Your task to perform on an android device: change timer sound Image 0: 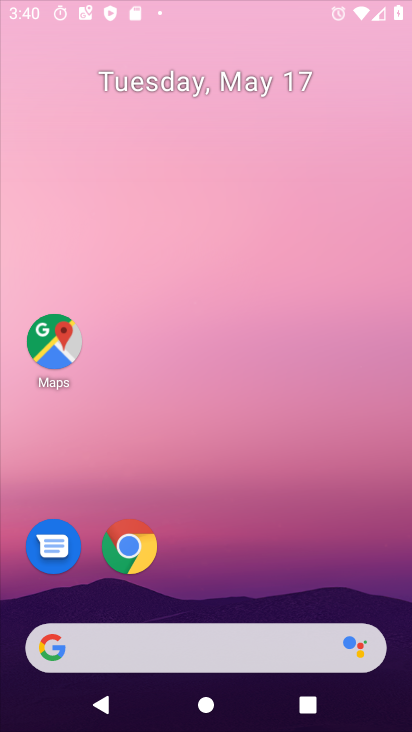
Step 0: click (254, 185)
Your task to perform on an android device: change timer sound Image 1: 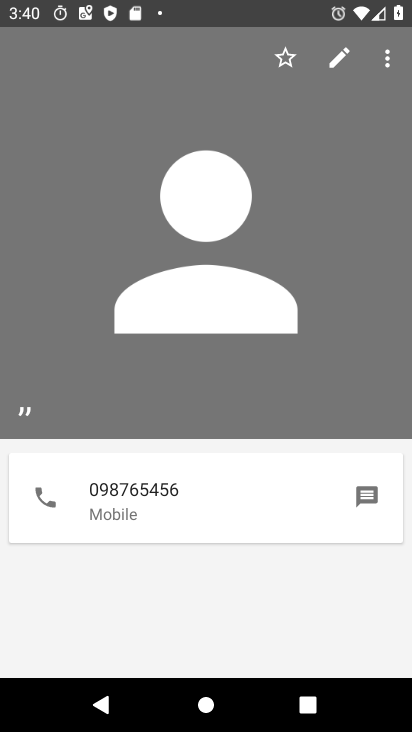
Step 1: press home button
Your task to perform on an android device: change timer sound Image 2: 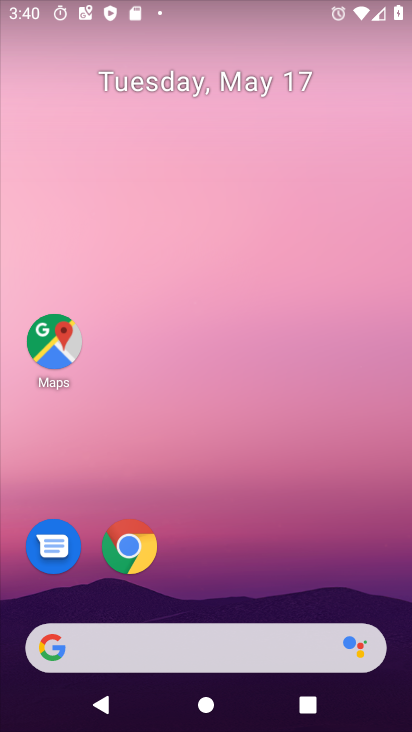
Step 2: drag from (221, 571) to (317, 1)
Your task to perform on an android device: change timer sound Image 3: 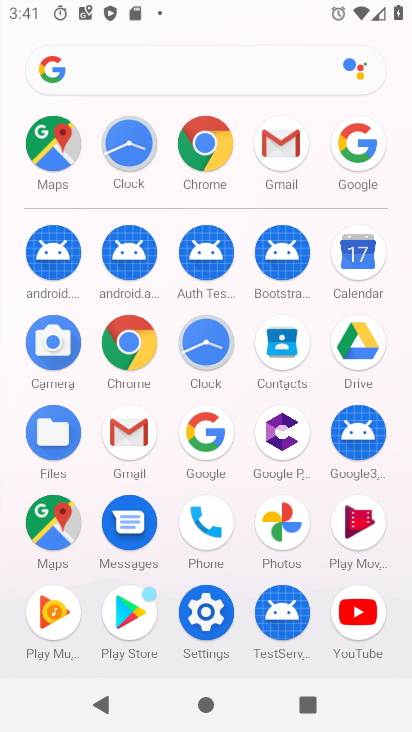
Step 3: click (209, 353)
Your task to perform on an android device: change timer sound Image 4: 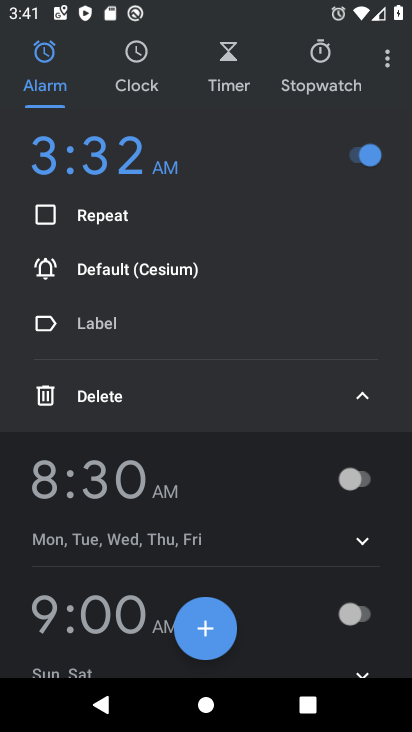
Step 4: click (389, 53)
Your task to perform on an android device: change timer sound Image 5: 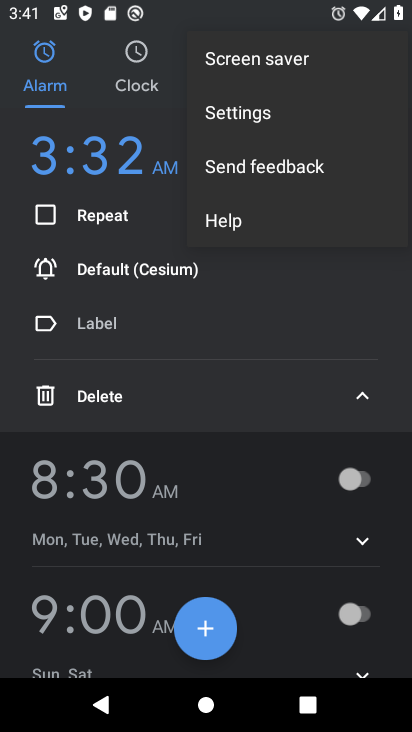
Step 5: click (271, 122)
Your task to perform on an android device: change timer sound Image 6: 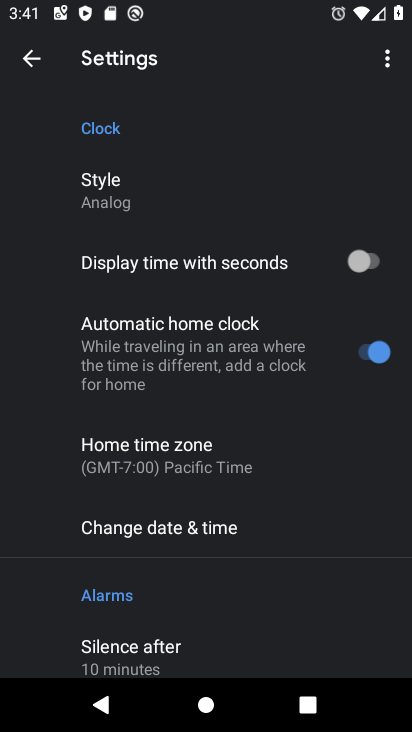
Step 6: drag from (213, 465) to (223, 332)
Your task to perform on an android device: change timer sound Image 7: 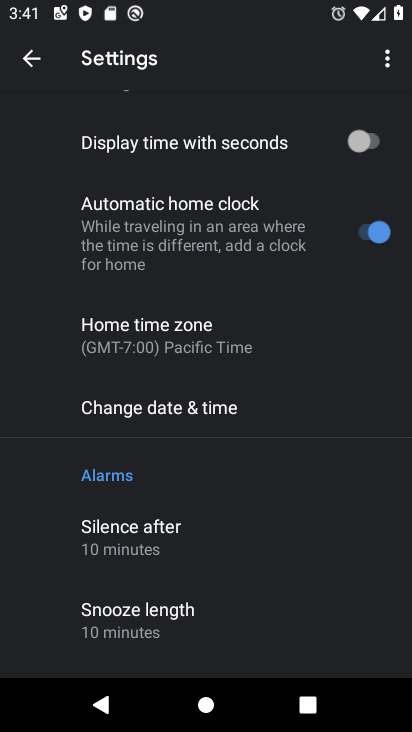
Step 7: drag from (212, 509) to (243, 262)
Your task to perform on an android device: change timer sound Image 8: 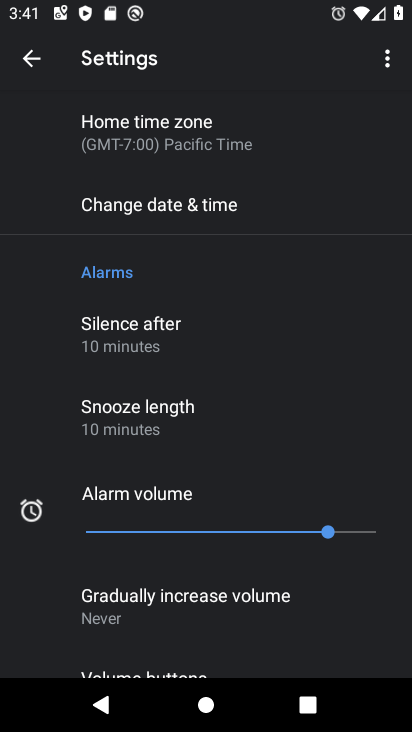
Step 8: drag from (226, 568) to (249, 308)
Your task to perform on an android device: change timer sound Image 9: 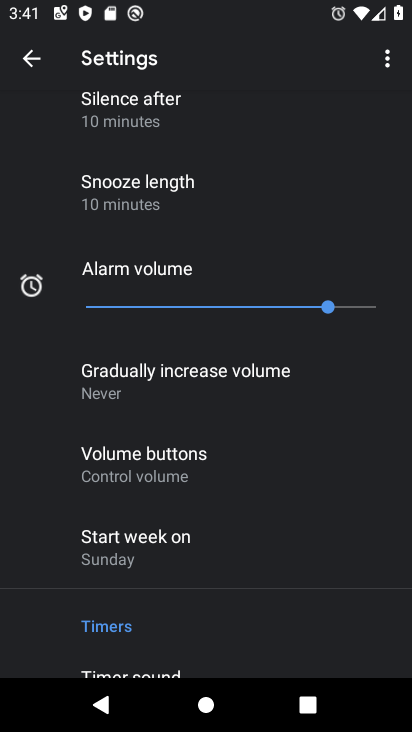
Step 9: drag from (214, 573) to (236, 306)
Your task to perform on an android device: change timer sound Image 10: 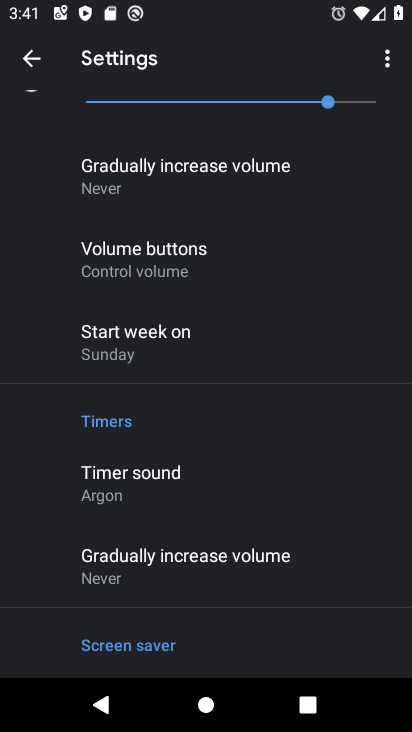
Step 10: click (177, 492)
Your task to perform on an android device: change timer sound Image 11: 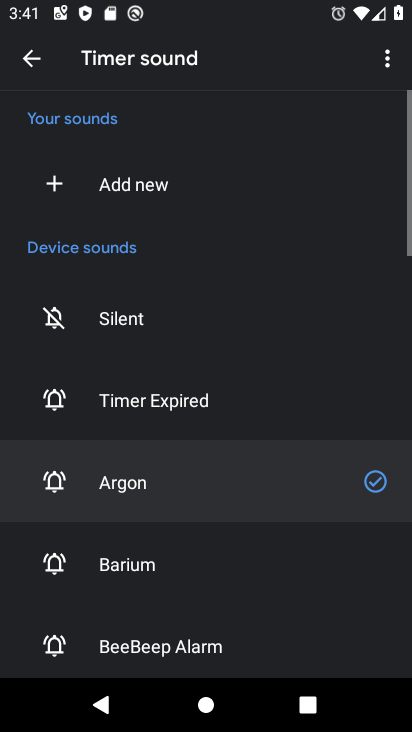
Step 11: click (180, 388)
Your task to perform on an android device: change timer sound Image 12: 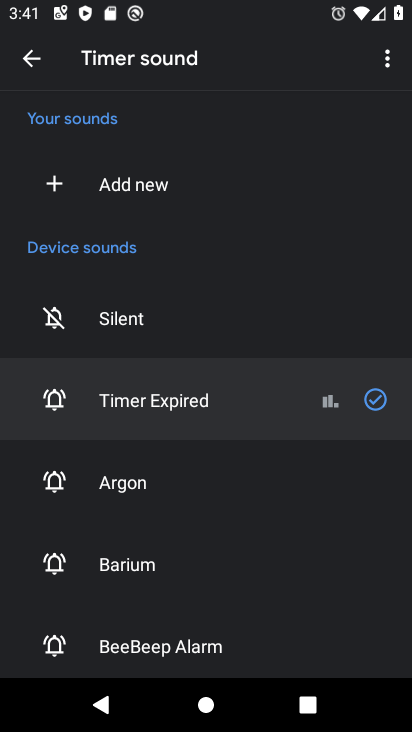
Step 12: task complete